Your task to perform on an android device: turn notification dots off Image 0: 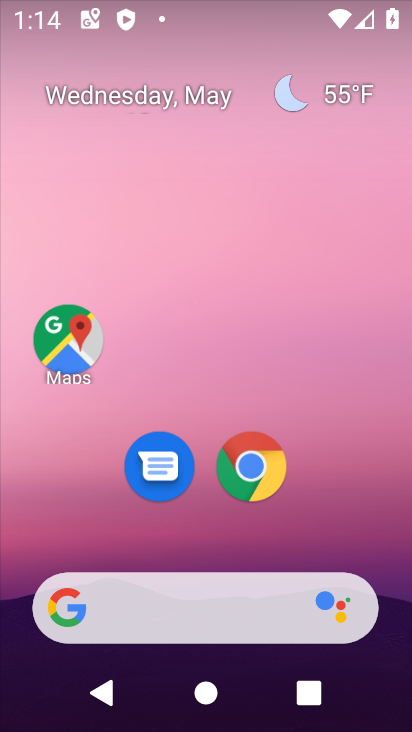
Step 0: drag from (329, 427) to (358, 1)
Your task to perform on an android device: turn notification dots off Image 1: 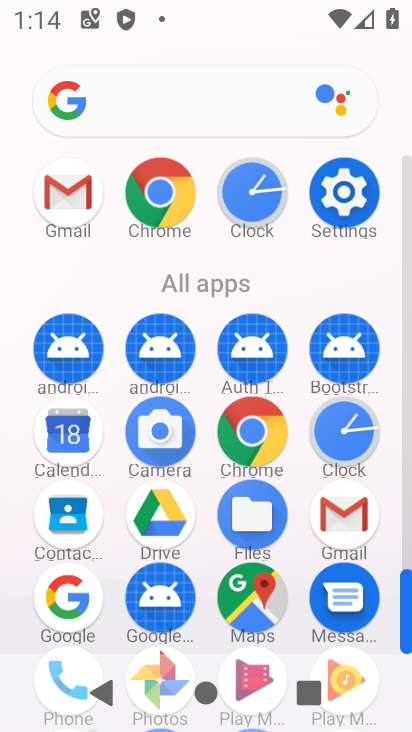
Step 1: click (328, 197)
Your task to perform on an android device: turn notification dots off Image 2: 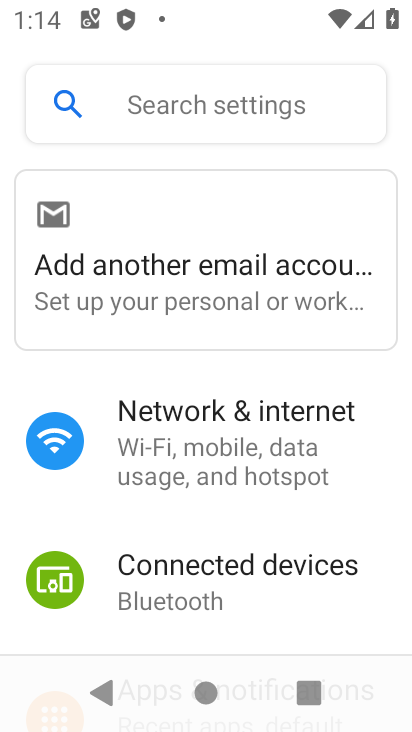
Step 2: drag from (160, 529) to (168, 259)
Your task to perform on an android device: turn notification dots off Image 3: 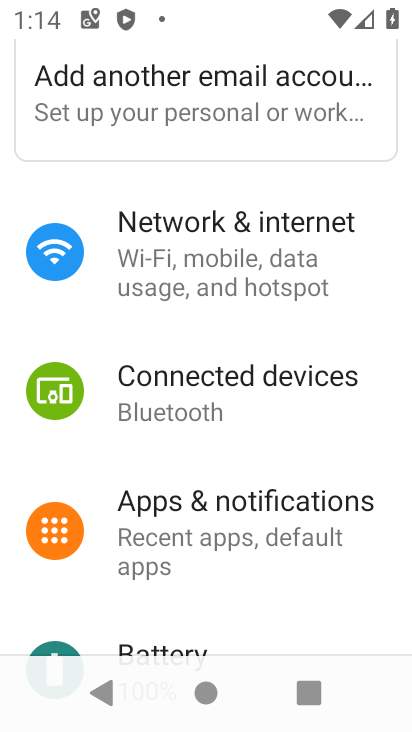
Step 3: click (217, 504)
Your task to perform on an android device: turn notification dots off Image 4: 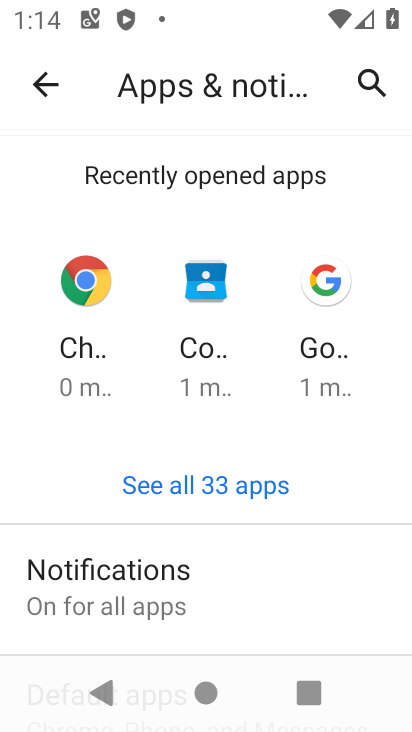
Step 4: click (195, 600)
Your task to perform on an android device: turn notification dots off Image 5: 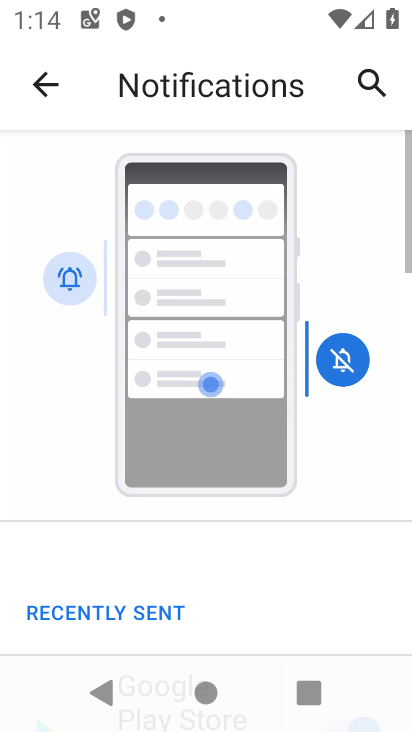
Step 5: drag from (202, 587) to (221, 347)
Your task to perform on an android device: turn notification dots off Image 6: 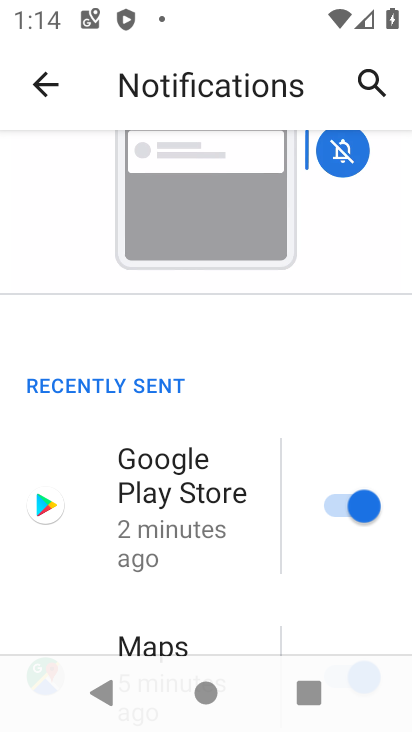
Step 6: drag from (190, 537) to (205, 245)
Your task to perform on an android device: turn notification dots off Image 7: 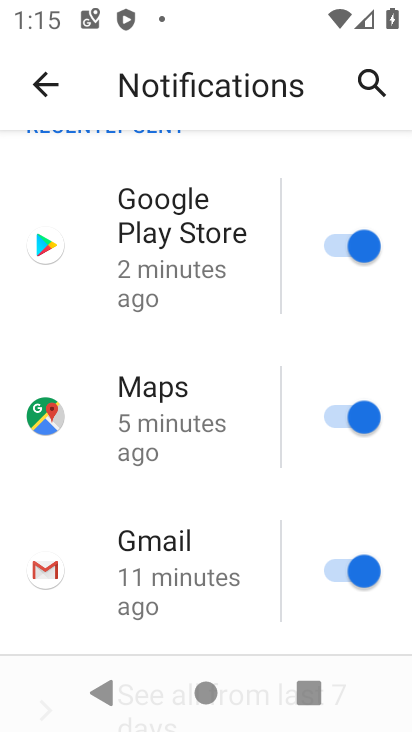
Step 7: drag from (203, 552) to (204, 210)
Your task to perform on an android device: turn notification dots off Image 8: 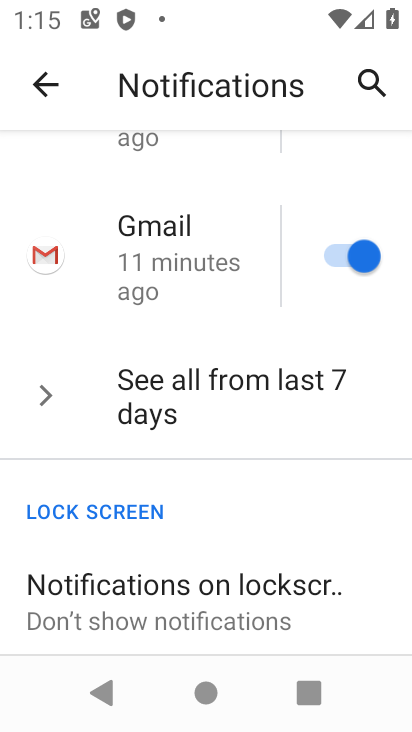
Step 8: drag from (230, 561) to (204, 228)
Your task to perform on an android device: turn notification dots off Image 9: 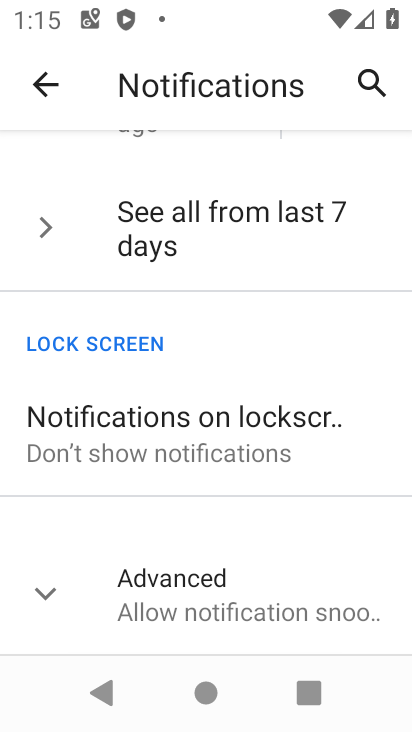
Step 9: click (235, 629)
Your task to perform on an android device: turn notification dots off Image 10: 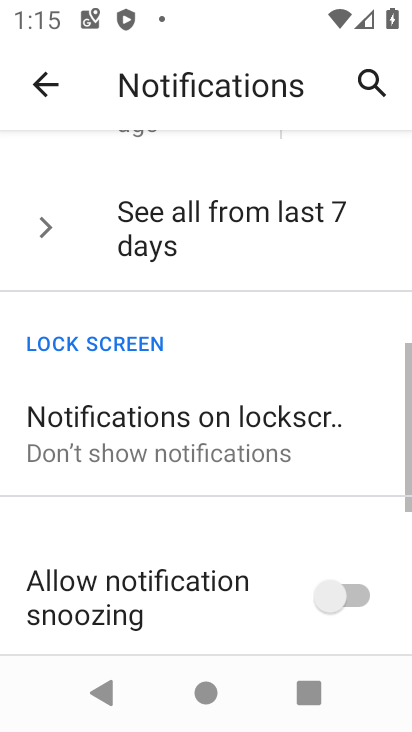
Step 10: drag from (225, 606) to (244, 214)
Your task to perform on an android device: turn notification dots off Image 11: 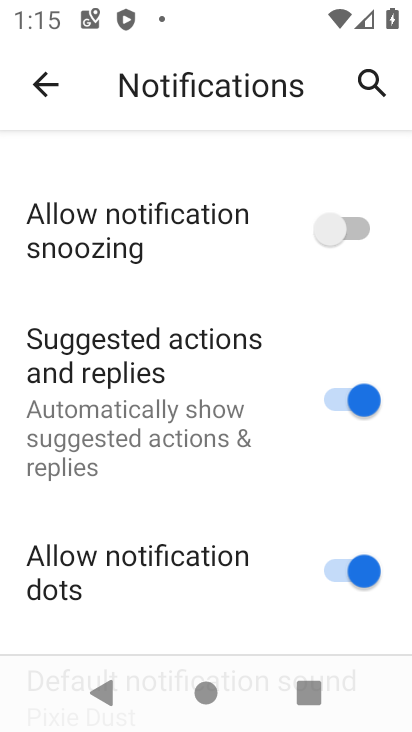
Step 11: click (343, 580)
Your task to perform on an android device: turn notification dots off Image 12: 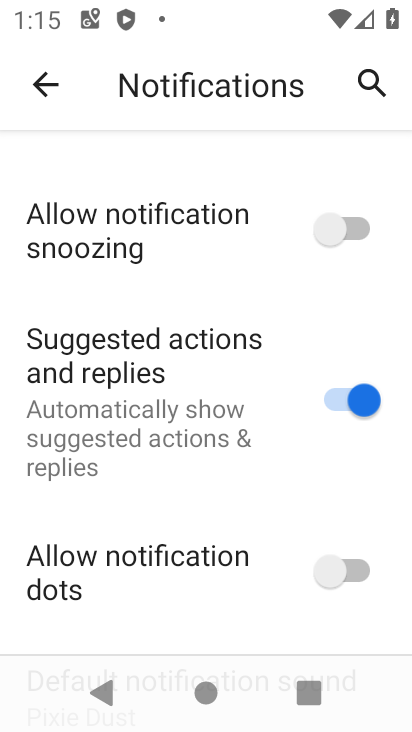
Step 12: task complete